Your task to perform on an android device: Go to battery settings Image 0: 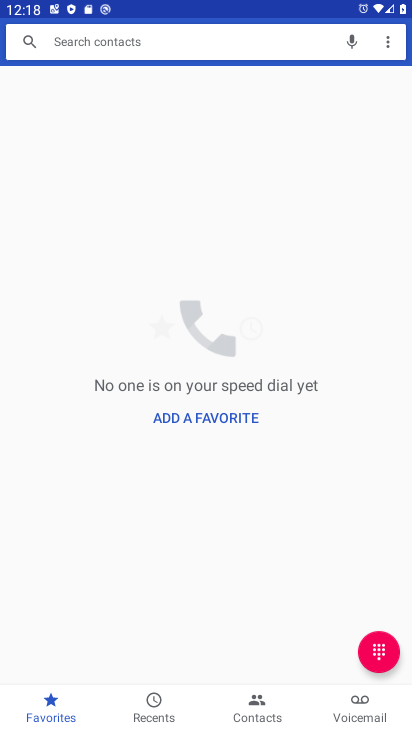
Step 0: press home button
Your task to perform on an android device: Go to battery settings Image 1: 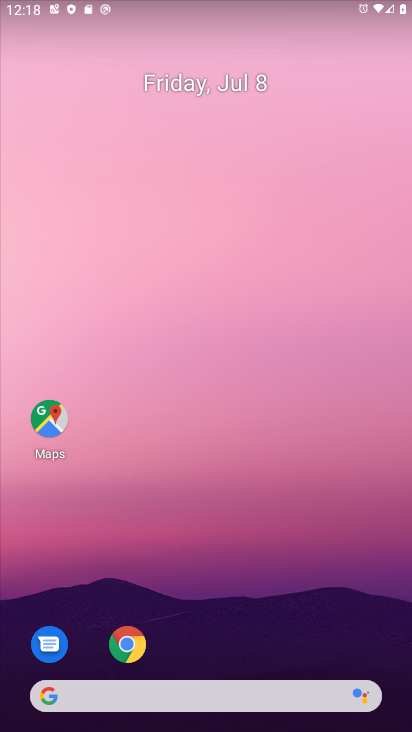
Step 1: drag from (190, 638) to (232, 79)
Your task to perform on an android device: Go to battery settings Image 2: 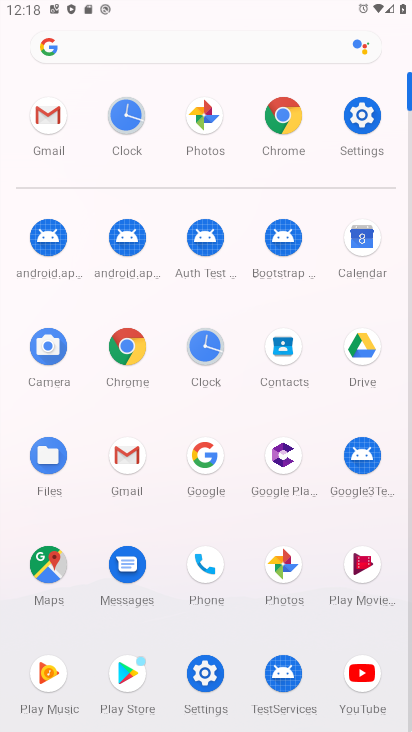
Step 2: click (214, 673)
Your task to perform on an android device: Go to battery settings Image 3: 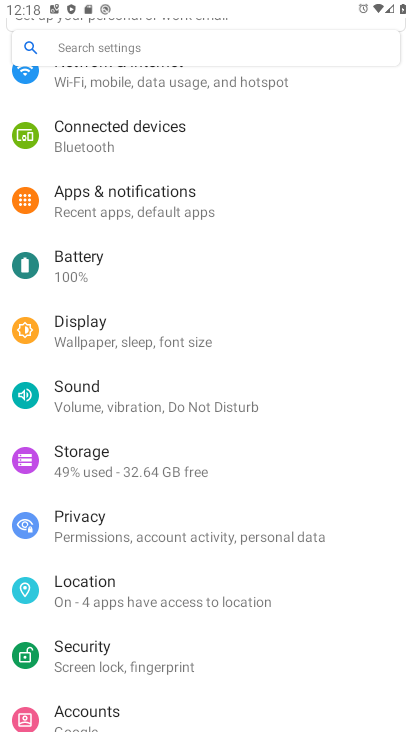
Step 3: click (108, 261)
Your task to perform on an android device: Go to battery settings Image 4: 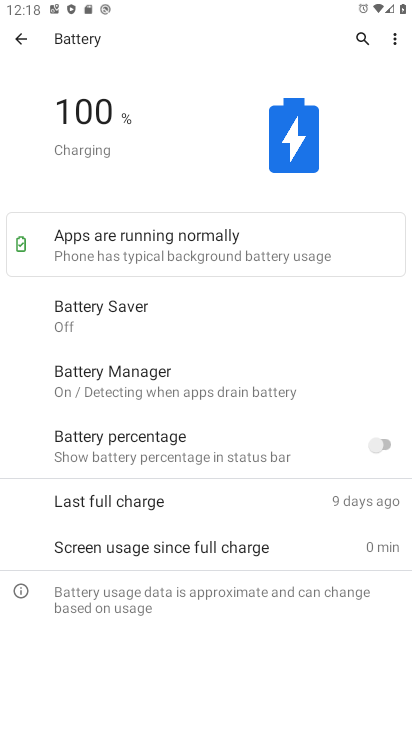
Step 4: task complete